Your task to perform on an android device: turn off priority inbox in the gmail app Image 0: 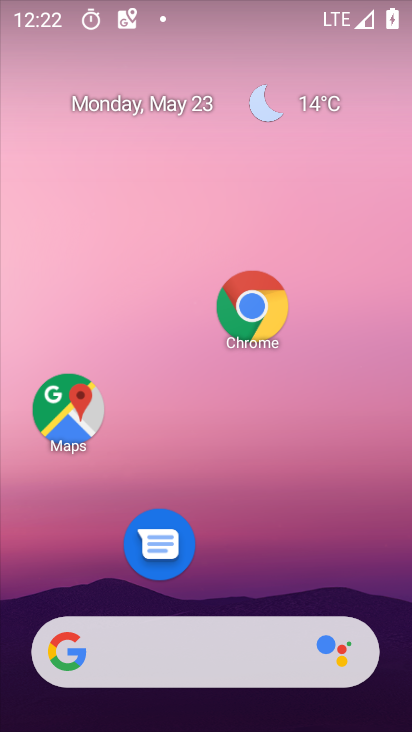
Step 0: drag from (226, 244) to (204, 2)
Your task to perform on an android device: turn off priority inbox in the gmail app Image 1: 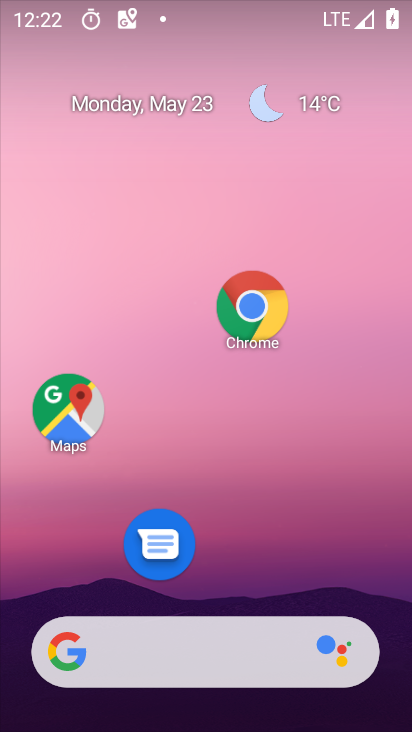
Step 1: drag from (230, 523) to (216, 100)
Your task to perform on an android device: turn off priority inbox in the gmail app Image 2: 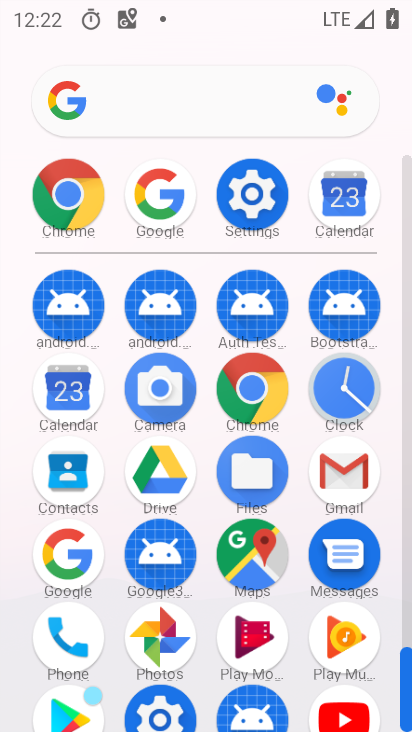
Step 2: drag from (309, 571) to (309, 333)
Your task to perform on an android device: turn off priority inbox in the gmail app Image 3: 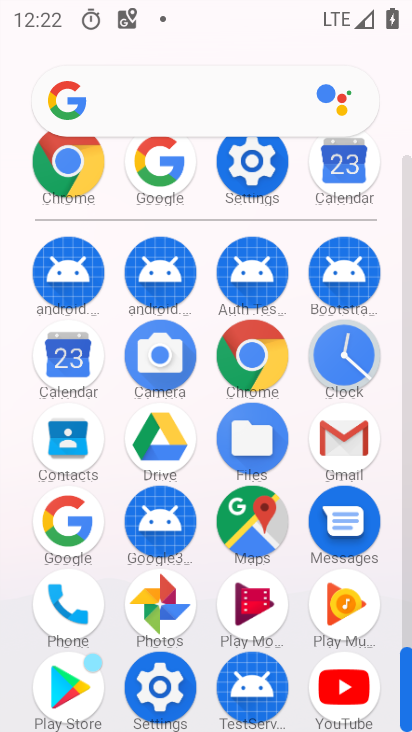
Step 3: drag from (313, 225) to (295, 404)
Your task to perform on an android device: turn off priority inbox in the gmail app Image 4: 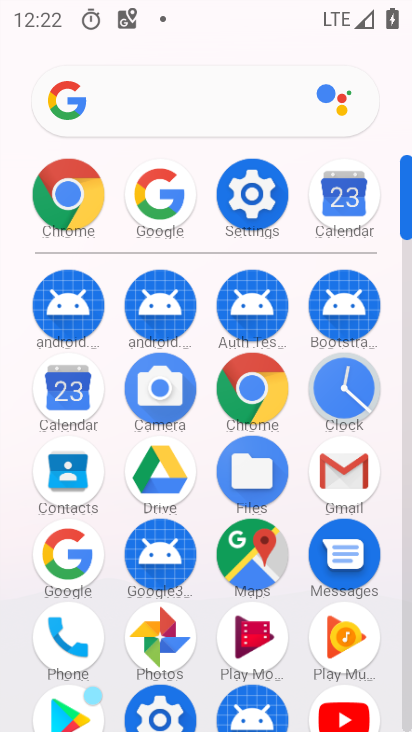
Step 4: drag from (261, 550) to (263, 229)
Your task to perform on an android device: turn off priority inbox in the gmail app Image 5: 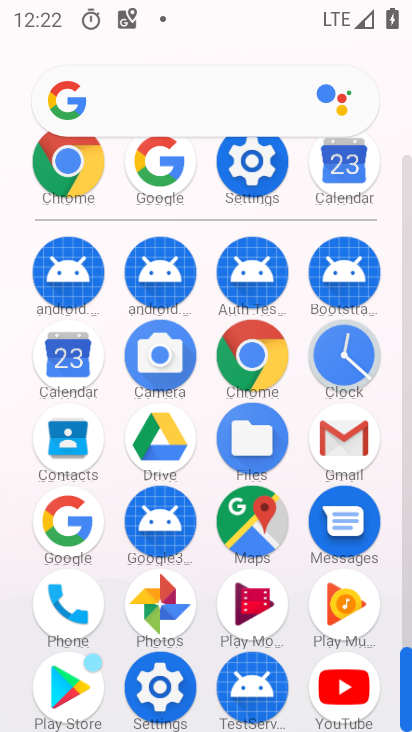
Step 5: drag from (281, 257) to (274, 457)
Your task to perform on an android device: turn off priority inbox in the gmail app Image 6: 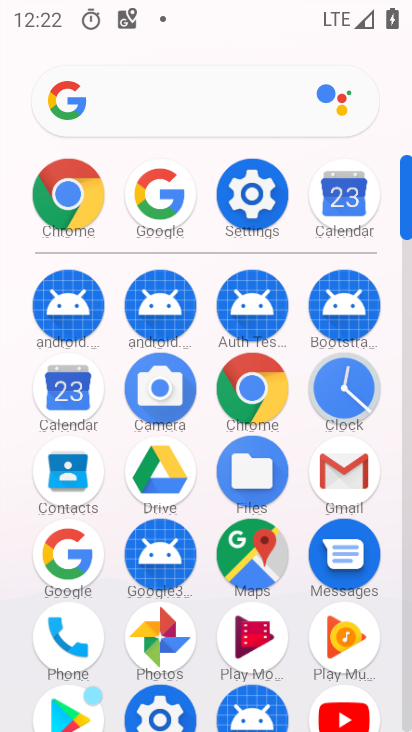
Step 6: click (358, 466)
Your task to perform on an android device: turn off priority inbox in the gmail app Image 7: 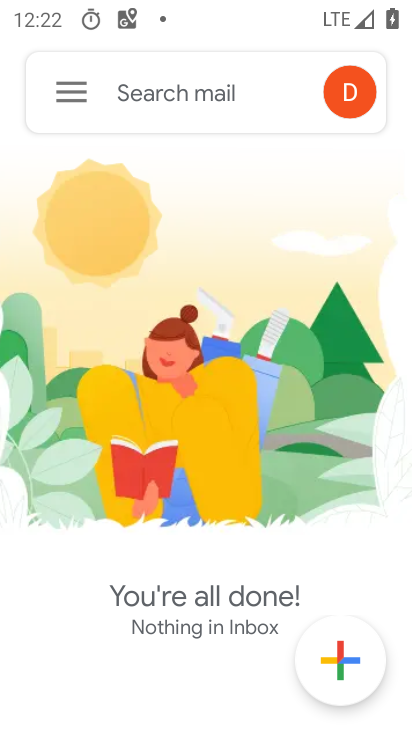
Step 7: click (73, 97)
Your task to perform on an android device: turn off priority inbox in the gmail app Image 8: 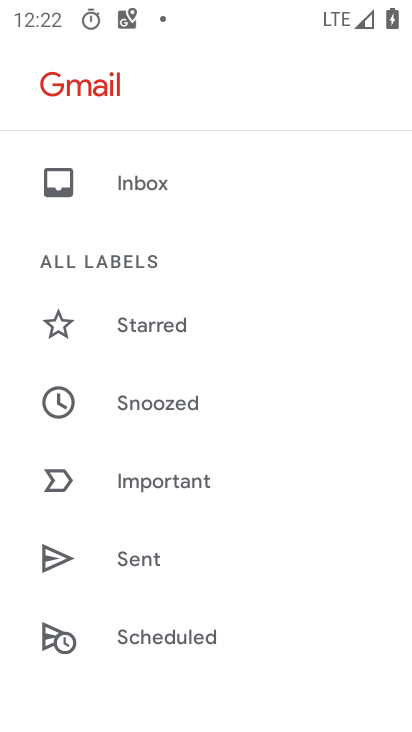
Step 8: drag from (198, 608) to (221, 254)
Your task to perform on an android device: turn off priority inbox in the gmail app Image 9: 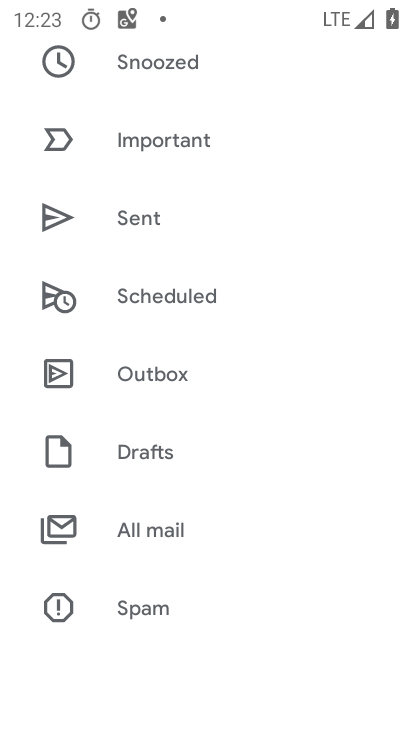
Step 9: drag from (157, 583) to (165, 278)
Your task to perform on an android device: turn off priority inbox in the gmail app Image 10: 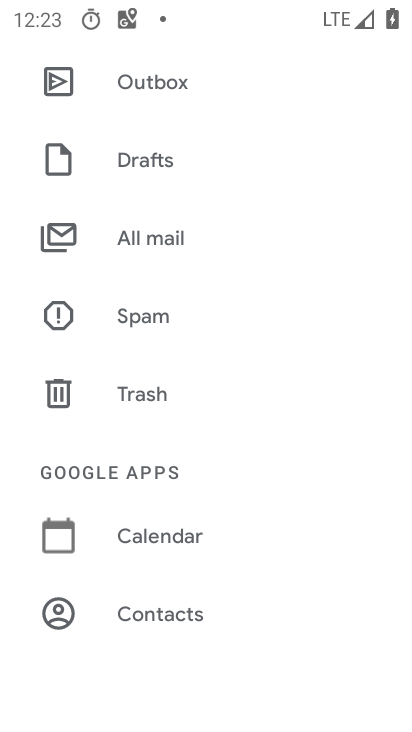
Step 10: drag from (186, 629) to (204, 280)
Your task to perform on an android device: turn off priority inbox in the gmail app Image 11: 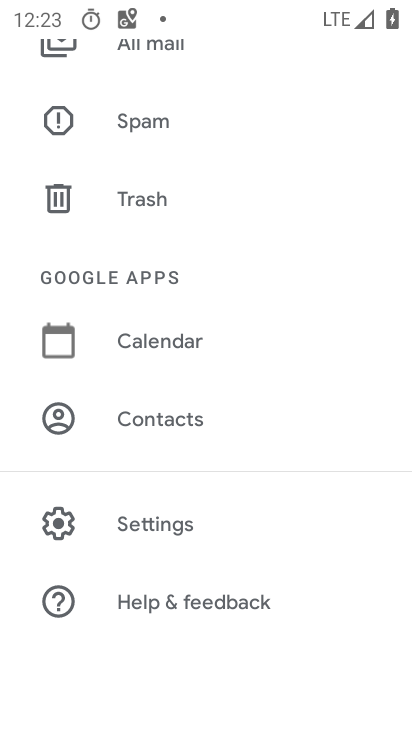
Step 11: click (154, 531)
Your task to perform on an android device: turn off priority inbox in the gmail app Image 12: 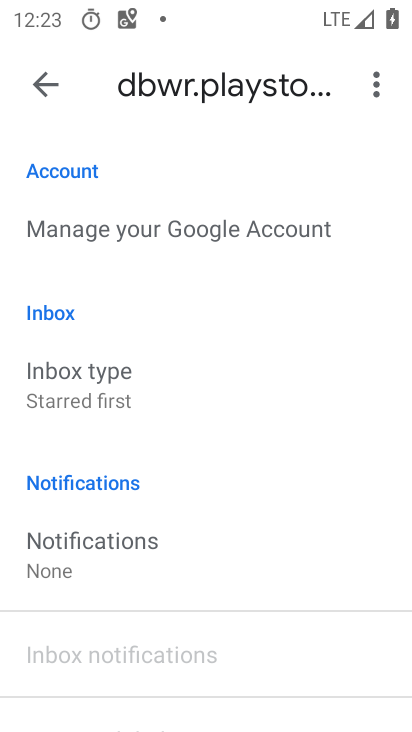
Step 12: click (89, 379)
Your task to perform on an android device: turn off priority inbox in the gmail app Image 13: 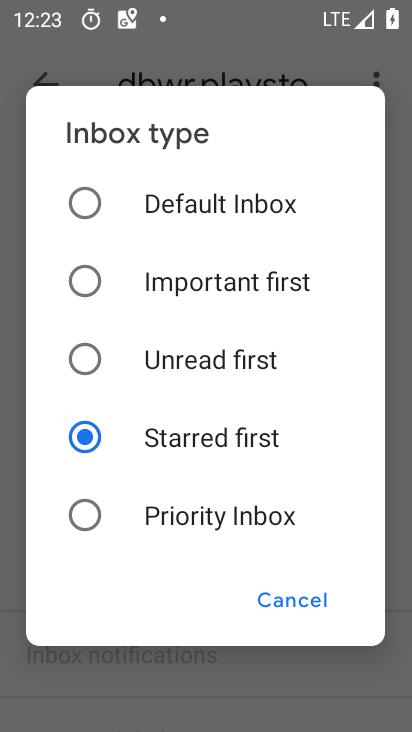
Step 13: task complete